Your task to perform on an android device: turn on notifications settings in the gmail app Image 0: 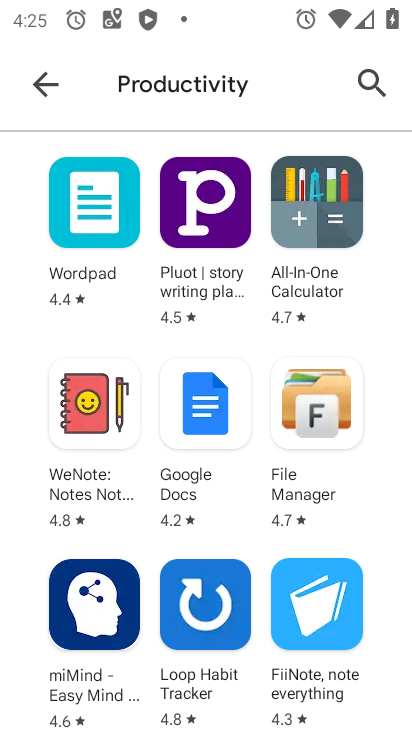
Step 0: press home button
Your task to perform on an android device: turn on notifications settings in the gmail app Image 1: 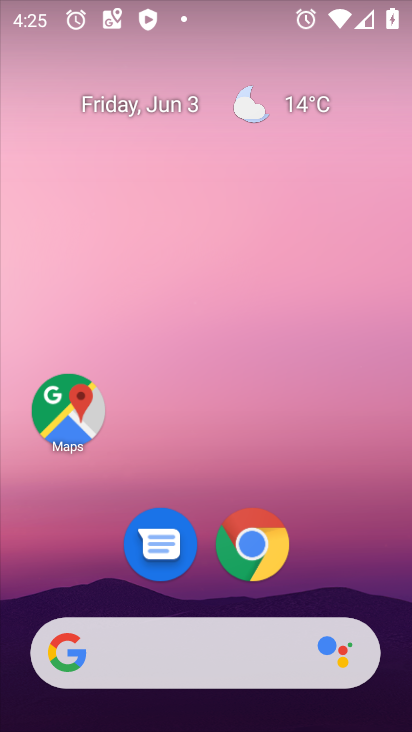
Step 1: drag from (388, 617) to (330, 2)
Your task to perform on an android device: turn on notifications settings in the gmail app Image 2: 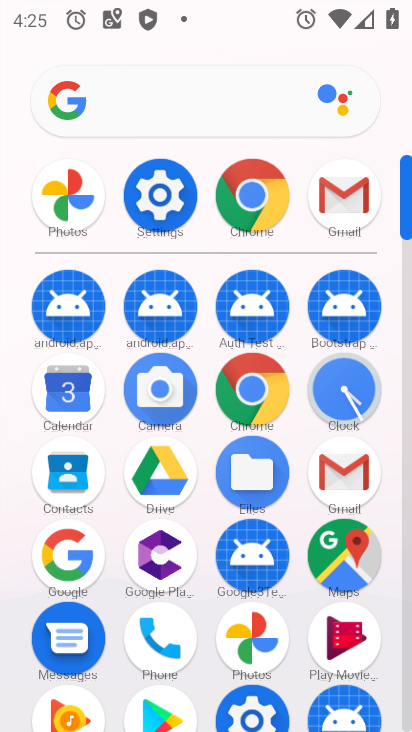
Step 2: click (342, 477)
Your task to perform on an android device: turn on notifications settings in the gmail app Image 3: 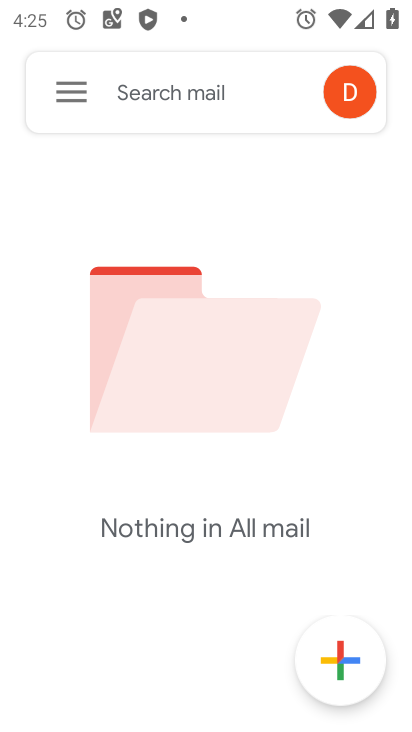
Step 3: click (73, 88)
Your task to perform on an android device: turn on notifications settings in the gmail app Image 4: 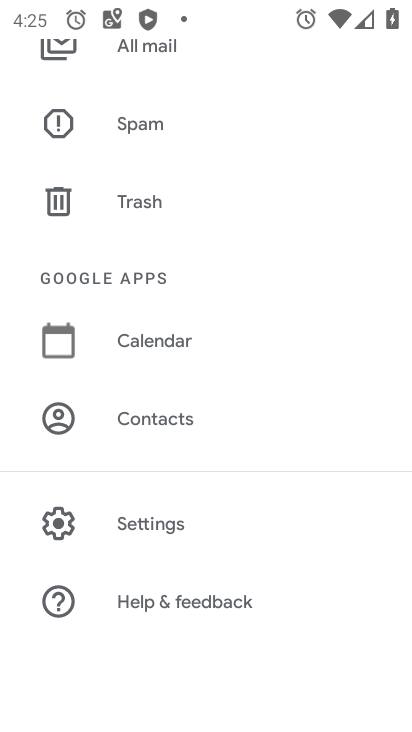
Step 4: click (160, 523)
Your task to perform on an android device: turn on notifications settings in the gmail app Image 5: 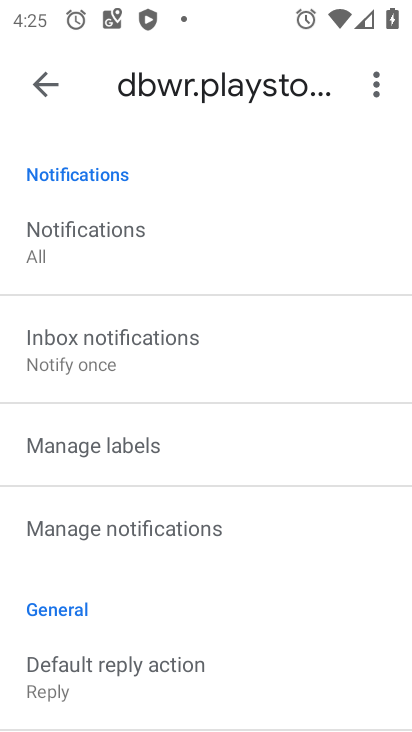
Step 5: click (196, 529)
Your task to perform on an android device: turn on notifications settings in the gmail app Image 6: 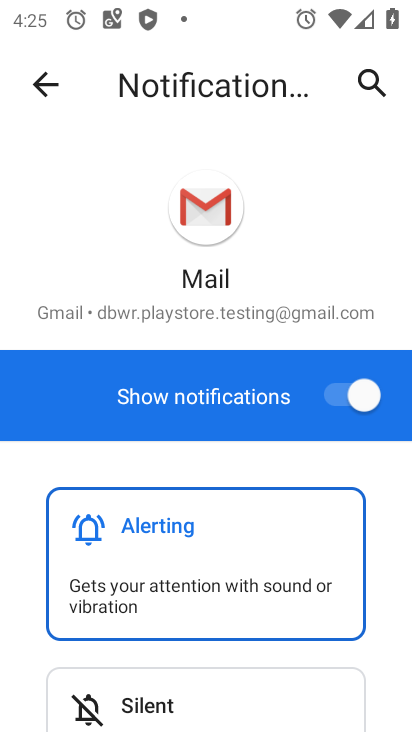
Step 6: task complete